Your task to perform on an android device: open a new tab in the chrome app Image 0: 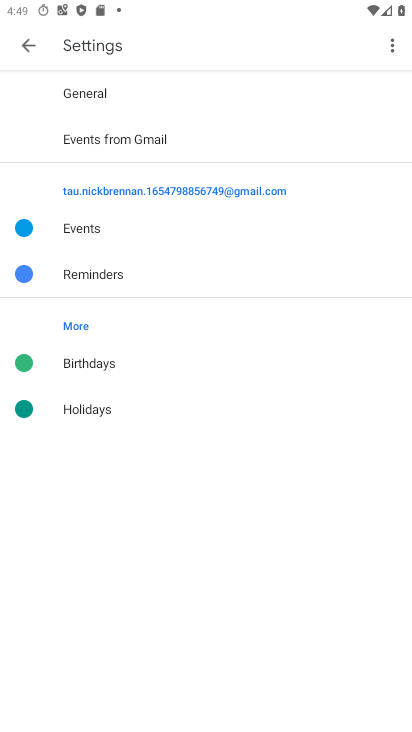
Step 0: press home button
Your task to perform on an android device: open a new tab in the chrome app Image 1: 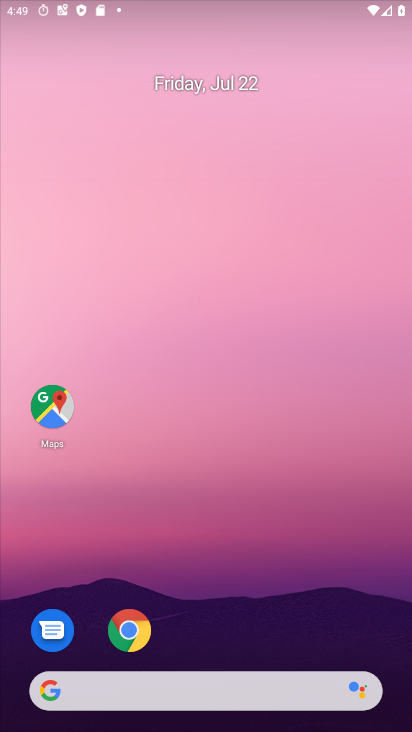
Step 1: drag from (248, 682) to (308, 42)
Your task to perform on an android device: open a new tab in the chrome app Image 2: 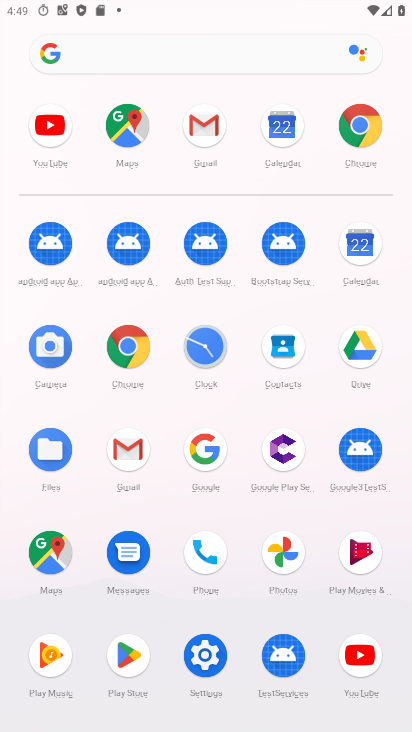
Step 2: click (132, 338)
Your task to perform on an android device: open a new tab in the chrome app Image 3: 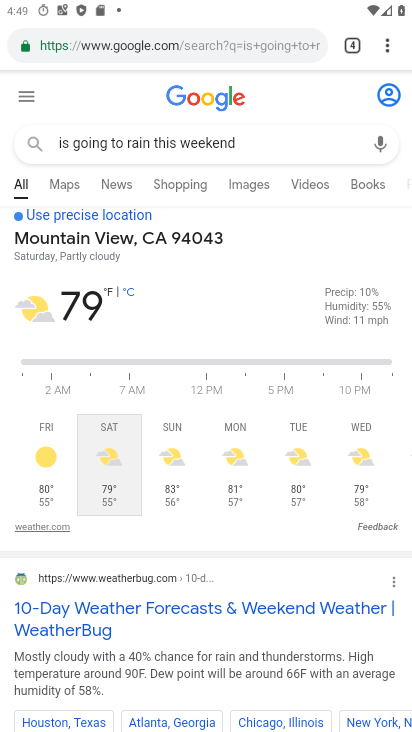
Step 3: task complete